Your task to perform on an android device: Go to privacy settings Image 0: 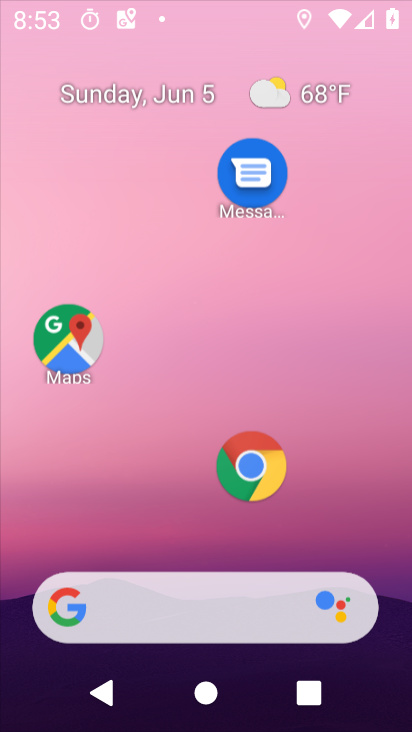
Step 0: press home button
Your task to perform on an android device: Go to privacy settings Image 1: 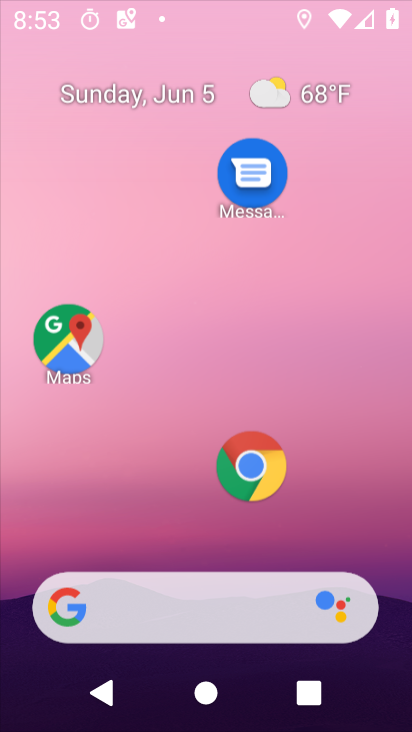
Step 1: click (211, 40)
Your task to perform on an android device: Go to privacy settings Image 2: 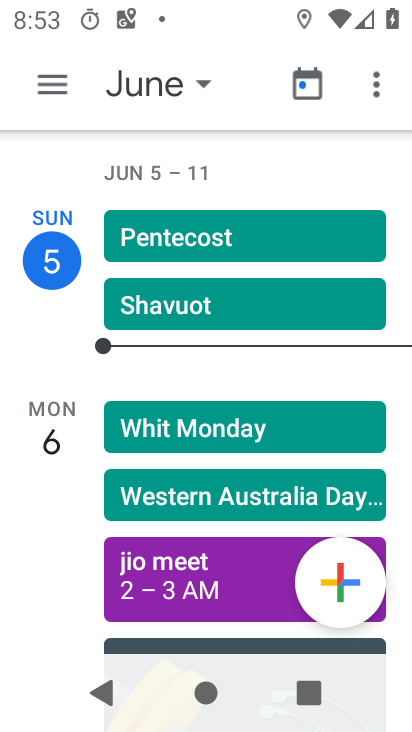
Step 2: drag from (192, 517) to (268, 58)
Your task to perform on an android device: Go to privacy settings Image 3: 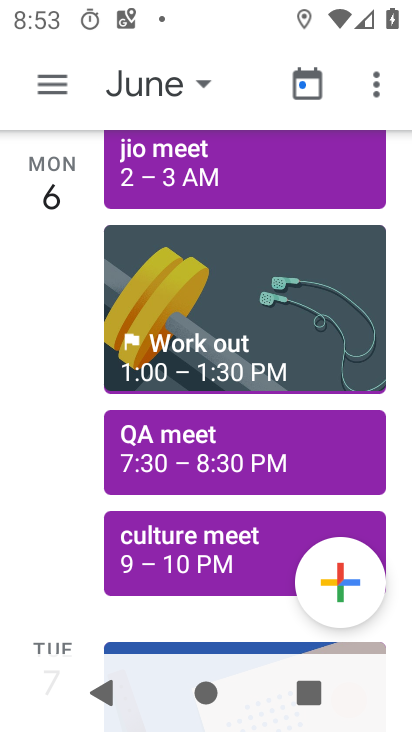
Step 3: press home button
Your task to perform on an android device: Go to privacy settings Image 4: 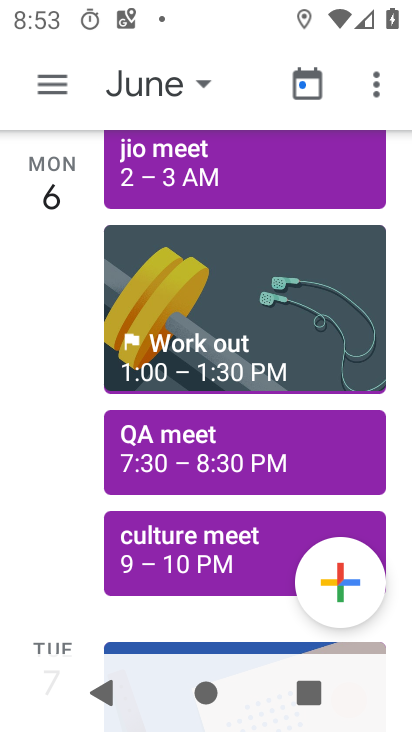
Step 4: drag from (208, 616) to (267, 21)
Your task to perform on an android device: Go to privacy settings Image 5: 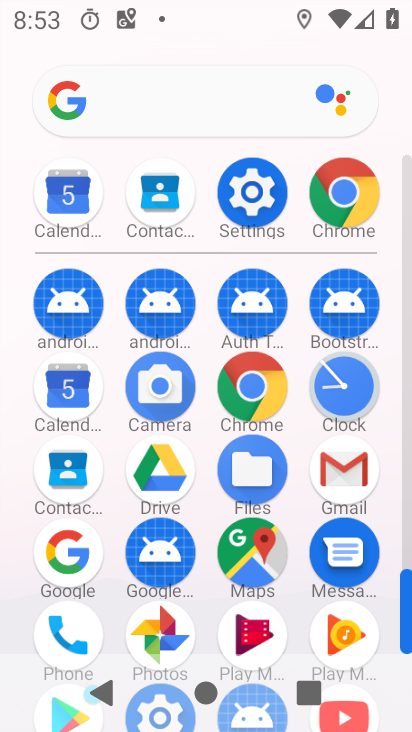
Step 5: click (258, 190)
Your task to perform on an android device: Go to privacy settings Image 6: 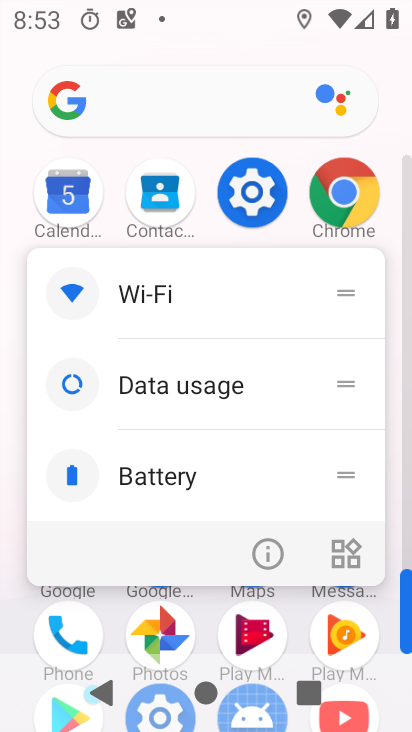
Step 6: click (275, 550)
Your task to perform on an android device: Go to privacy settings Image 7: 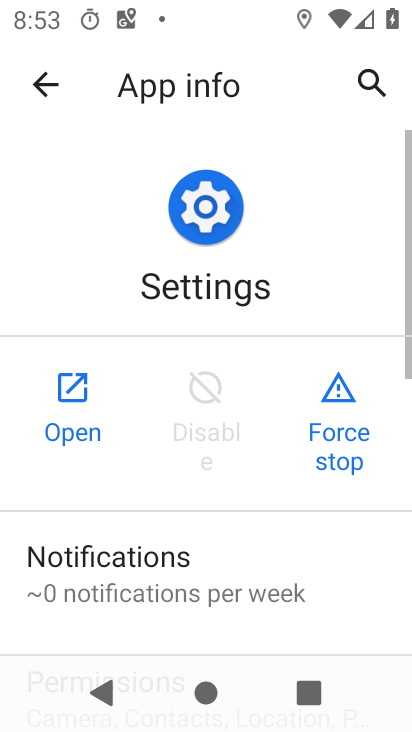
Step 7: click (54, 388)
Your task to perform on an android device: Go to privacy settings Image 8: 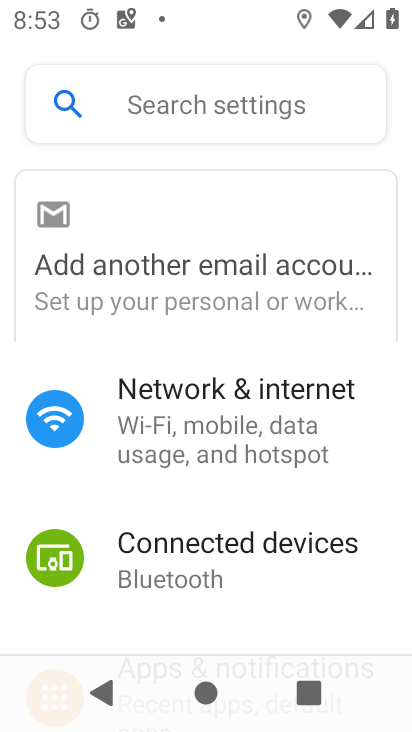
Step 8: drag from (207, 578) to (325, 125)
Your task to perform on an android device: Go to privacy settings Image 9: 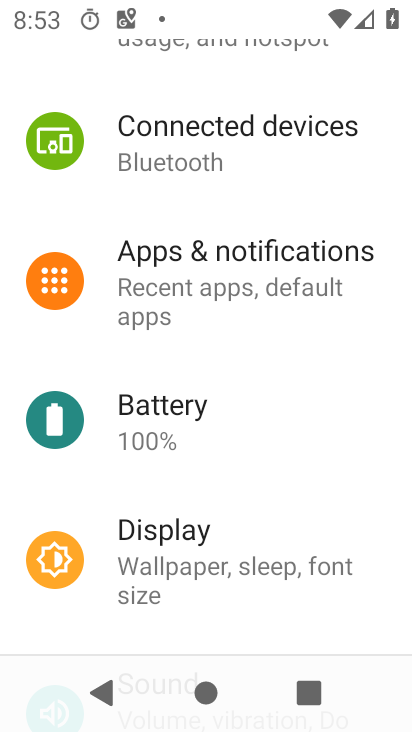
Step 9: drag from (212, 607) to (339, 129)
Your task to perform on an android device: Go to privacy settings Image 10: 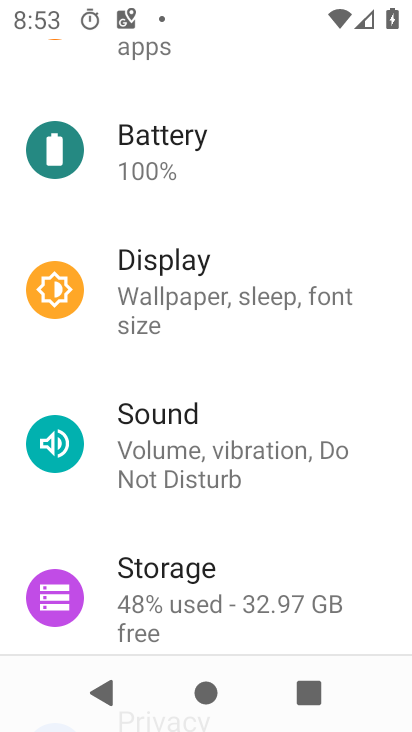
Step 10: drag from (218, 494) to (305, 118)
Your task to perform on an android device: Go to privacy settings Image 11: 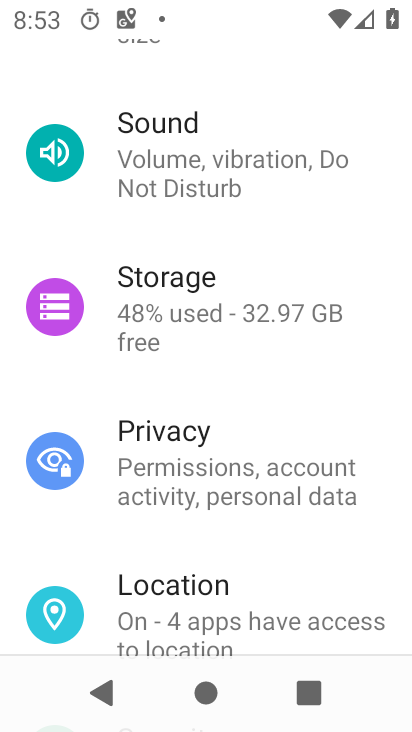
Step 11: click (194, 465)
Your task to perform on an android device: Go to privacy settings Image 12: 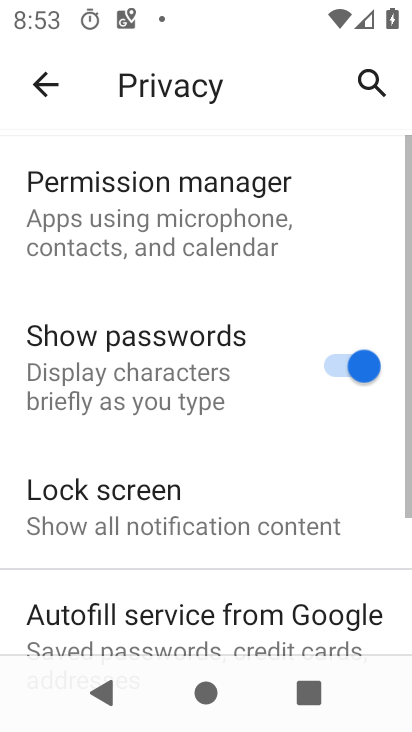
Step 12: task complete